Your task to perform on an android device: Show the shopping cart on amazon. Search for razer huntsman on amazon, select the first entry, and add it to the cart. Image 0: 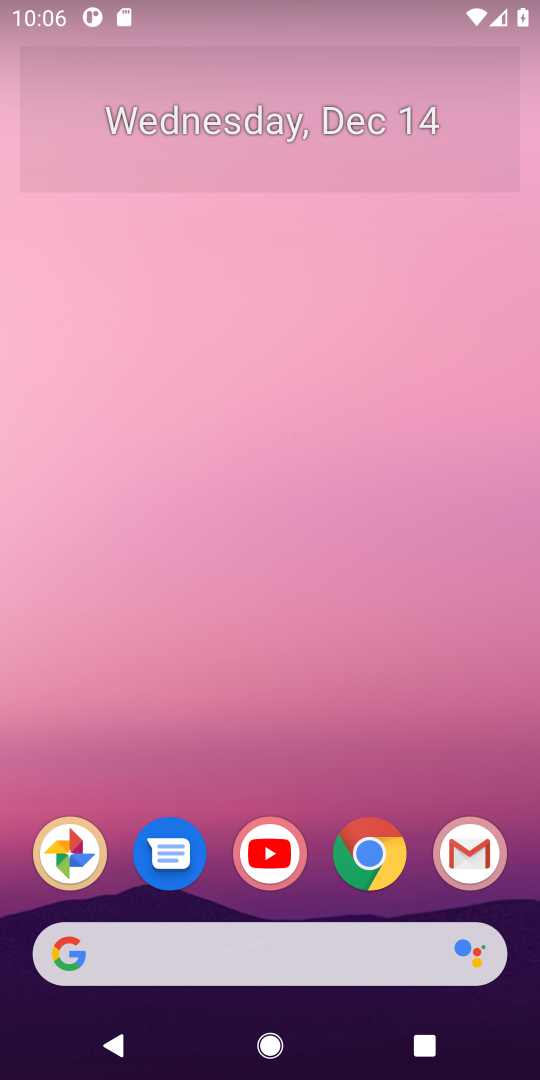
Step 0: click (366, 848)
Your task to perform on an android device: Show the shopping cart on amazon. Search for razer huntsman on amazon, select the first entry, and add it to the cart. Image 1: 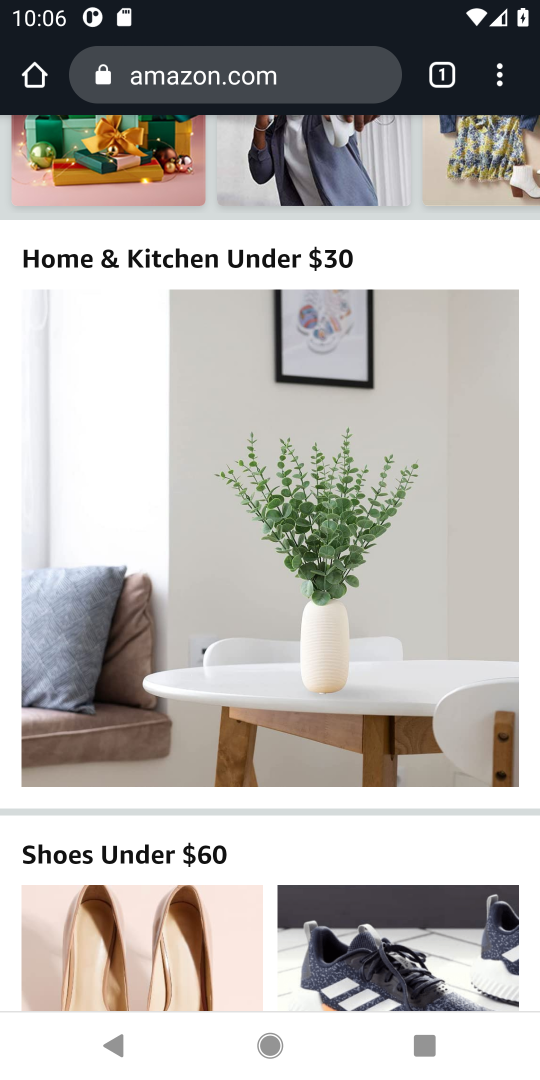
Step 1: press back button
Your task to perform on an android device: Show the shopping cart on amazon. Search for razer huntsman on amazon, select the first entry, and add it to the cart. Image 2: 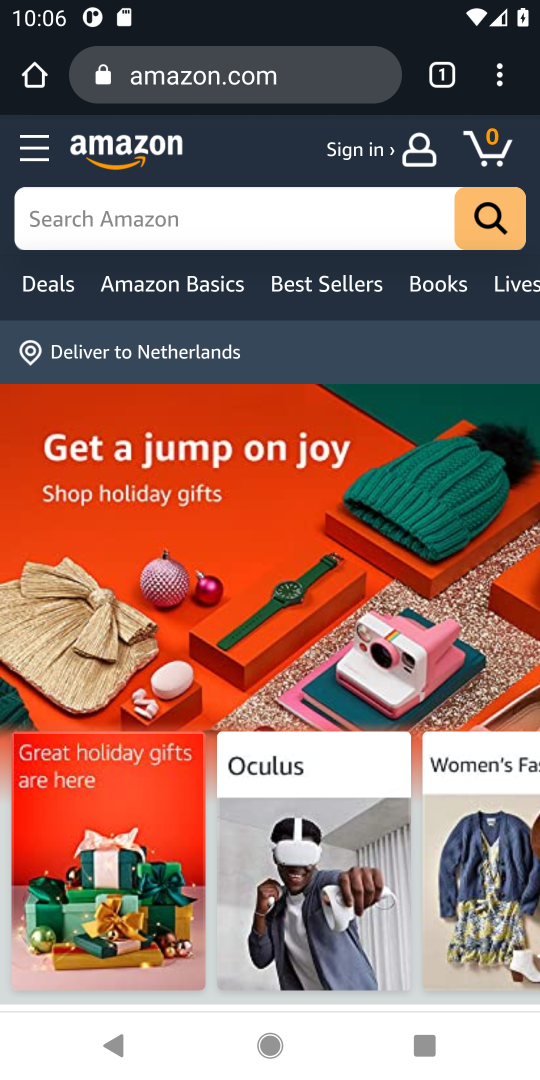
Step 2: click (37, 84)
Your task to perform on an android device: Show the shopping cart on amazon. Search for razer huntsman on amazon, select the first entry, and add it to the cart. Image 3: 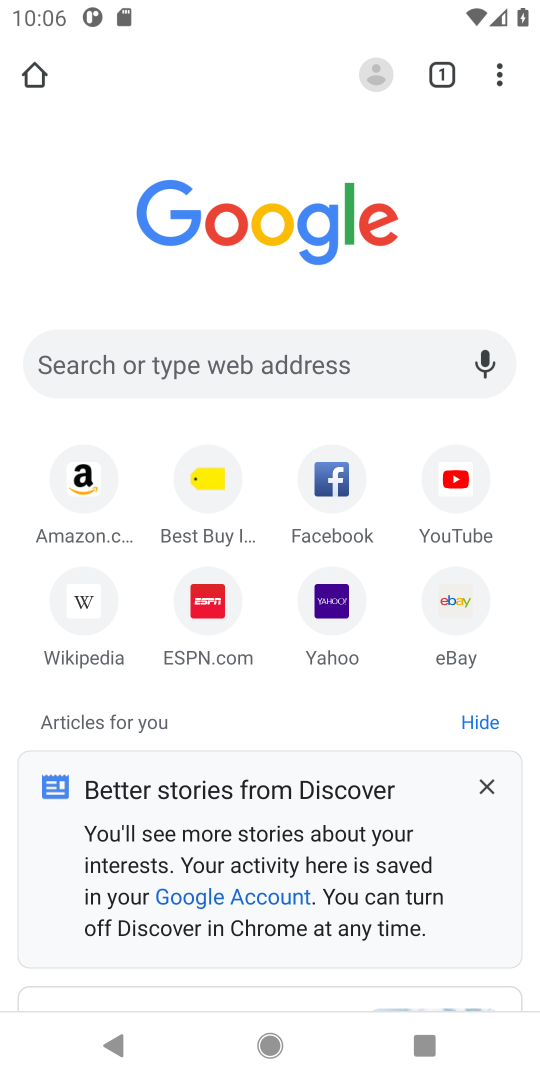
Step 3: click (75, 480)
Your task to perform on an android device: Show the shopping cart on amazon. Search for razer huntsman on amazon, select the first entry, and add it to the cart. Image 4: 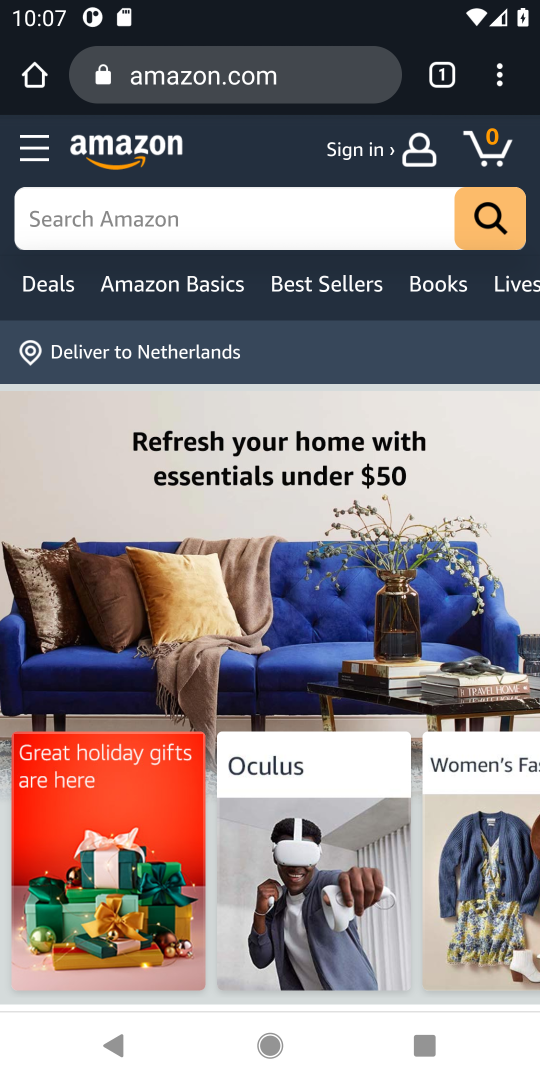
Step 4: click (352, 217)
Your task to perform on an android device: Show the shopping cart on amazon. Search for razer huntsman on amazon, select the first entry, and add it to the cart. Image 5: 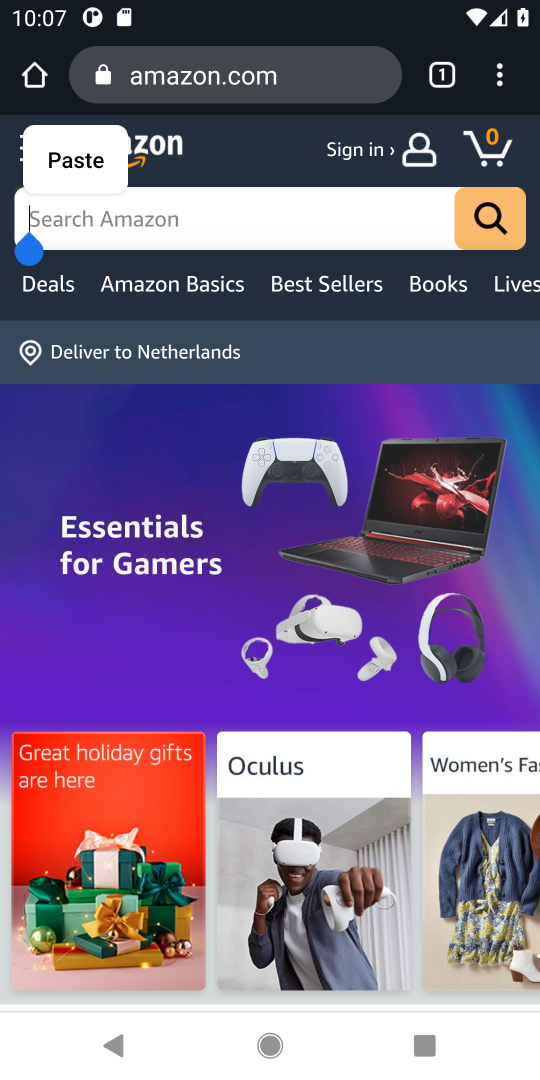
Step 5: click (498, 151)
Your task to perform on an android device: Show the shopping cart on amazon. Search for razer huntsman on amazon, select the first entry, and add it to the cart. Image 6: 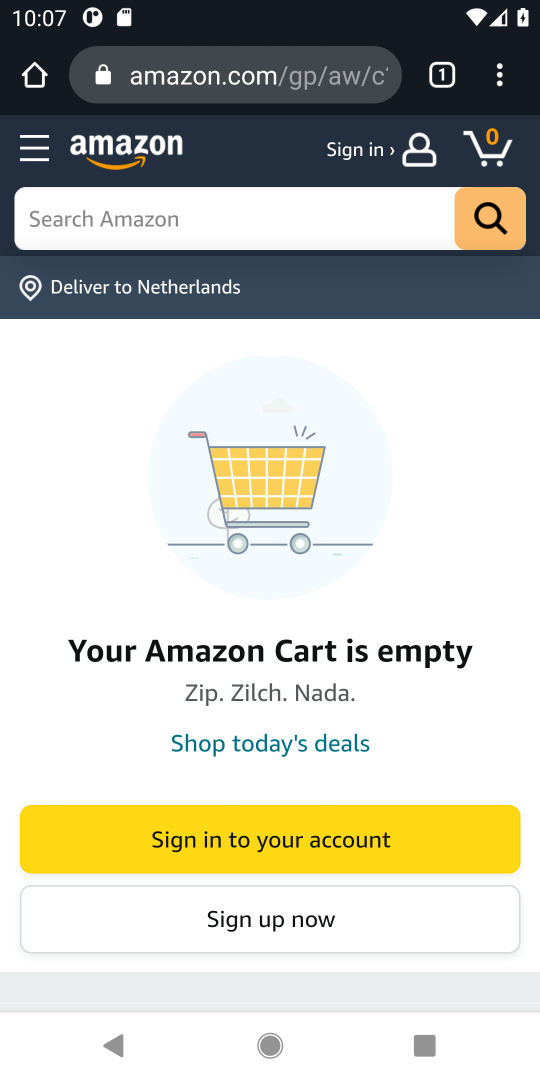
Step 6: click (393, 195)
Your task to perform on an android device: Show the shopping cart on amazon. Search for razer huntsman on amazon, select the first entry, and add it to the cart. Image 7: 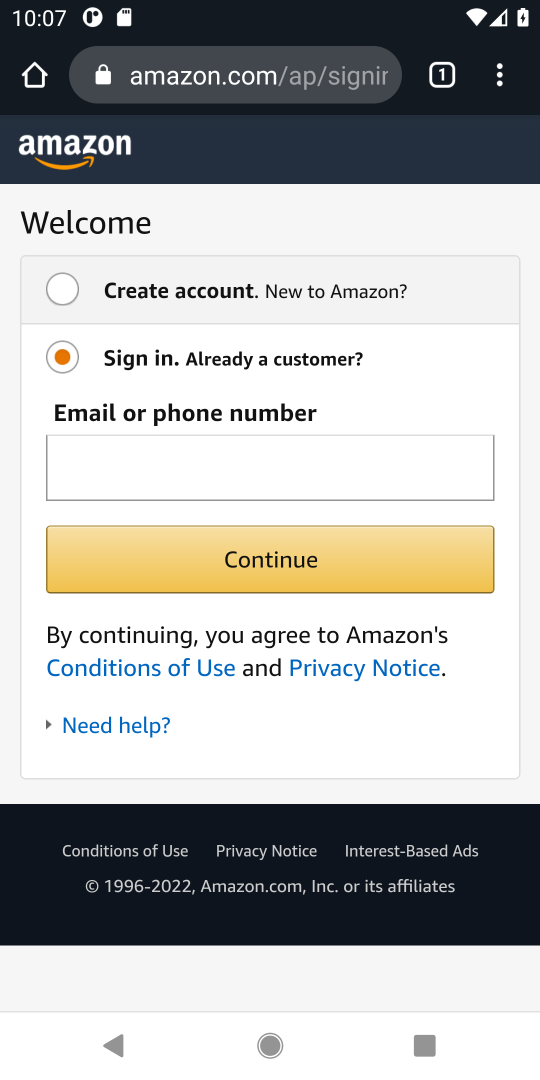
Step 7: press back button
Your task to perform on an android device: Show the shopping cart on amazon. Search for razer huntsman on amazon, select the first entry, and add it to the cart. Image 8: 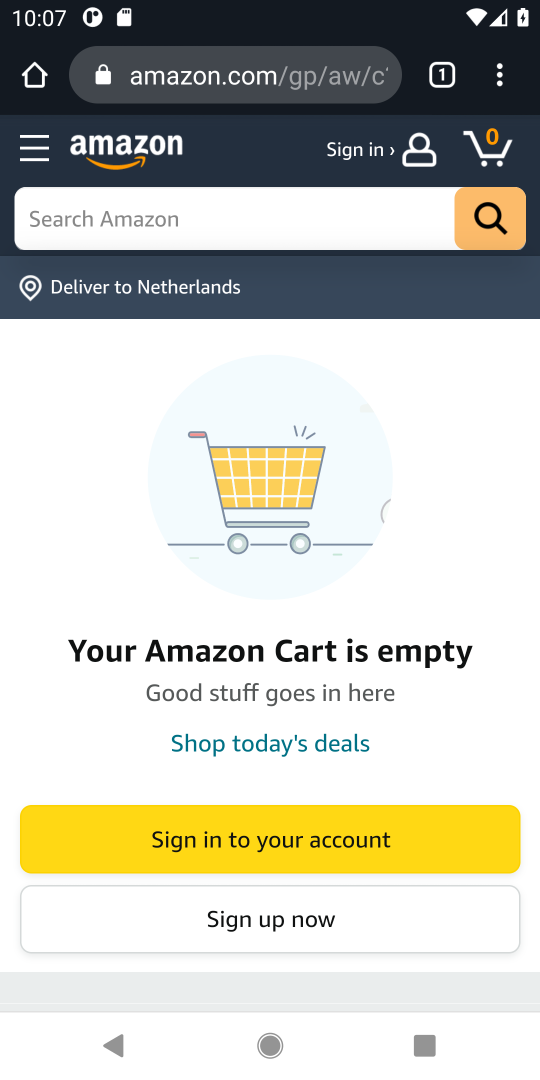
Step 8: click (260, 222)
Your task to perform on an android device: Show the shopping cart on amazon. Search for razer huntsman on amazon, select the first entry, and add it to the cart. Image 9: 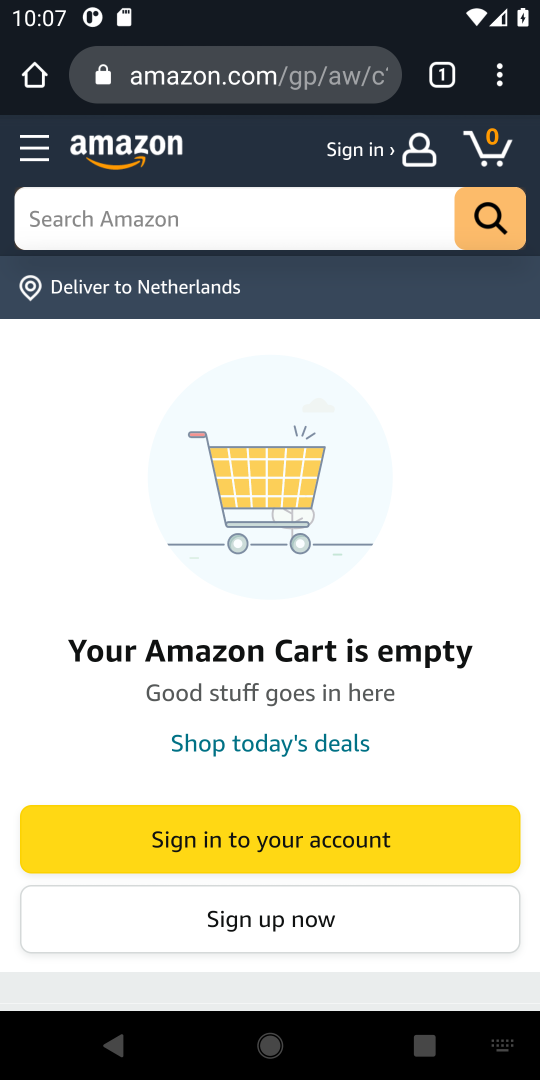
Step 9: press enter
Your task to perform on an android device: Show the shopping cart on amazon. Search for razer huntsman on amazon, select the first entry, and add it to the cart. Image 10: 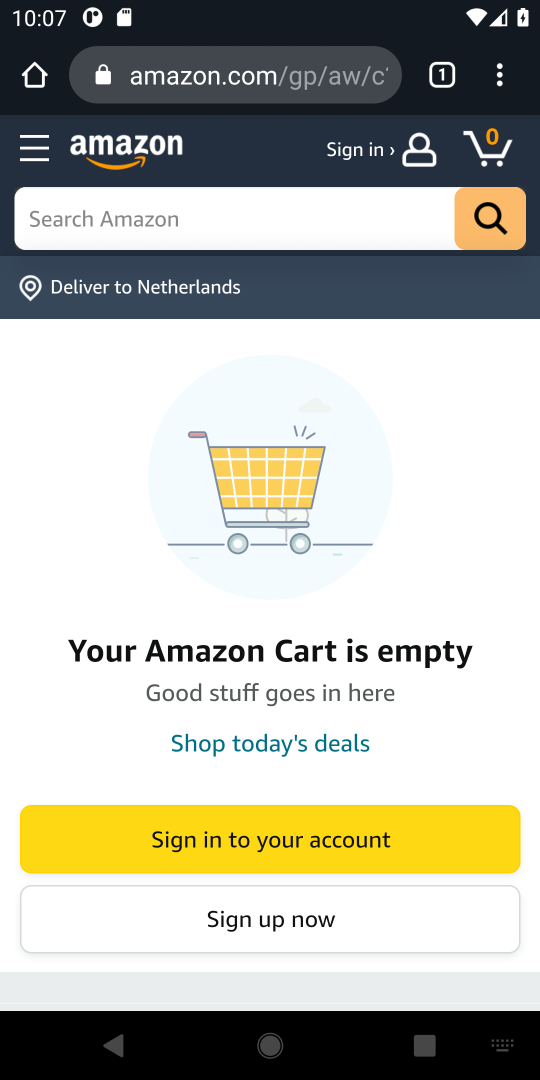
Step 10: type "razer huntsman"
Your task to perform on an android device: Show the shopping cart on amazon. Search for razer huntsman on amazon, select the first entry, and add it to the cart. Image 11: 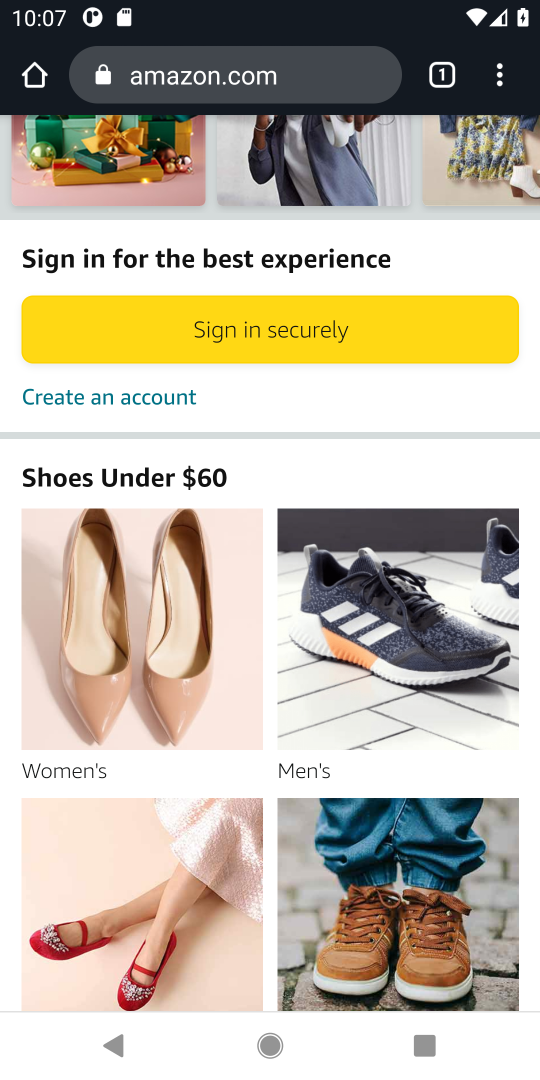
Step 11: press back button
Your task to perform on an android device: Show the shopping cart on amazon. Search for razer huntsman on amazon, select the first entry, and add it to the cart. Image 12: 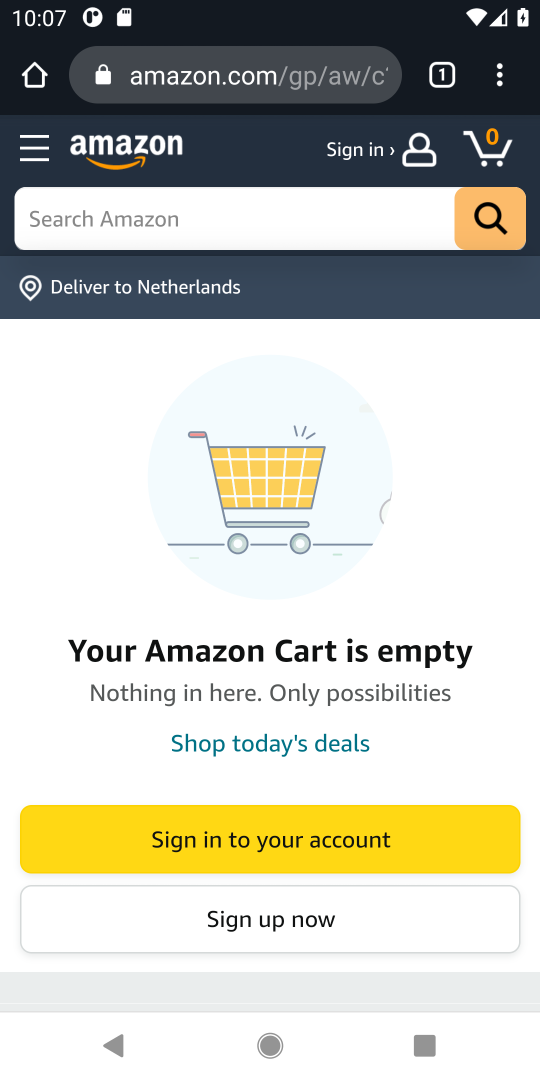
Step 12: click (63, 214)
Your task to perform on an android device: Show the shopping cart on amazon. Search for razer huntsman on amazon, select the first entry, and add it to the cart. Image 13: 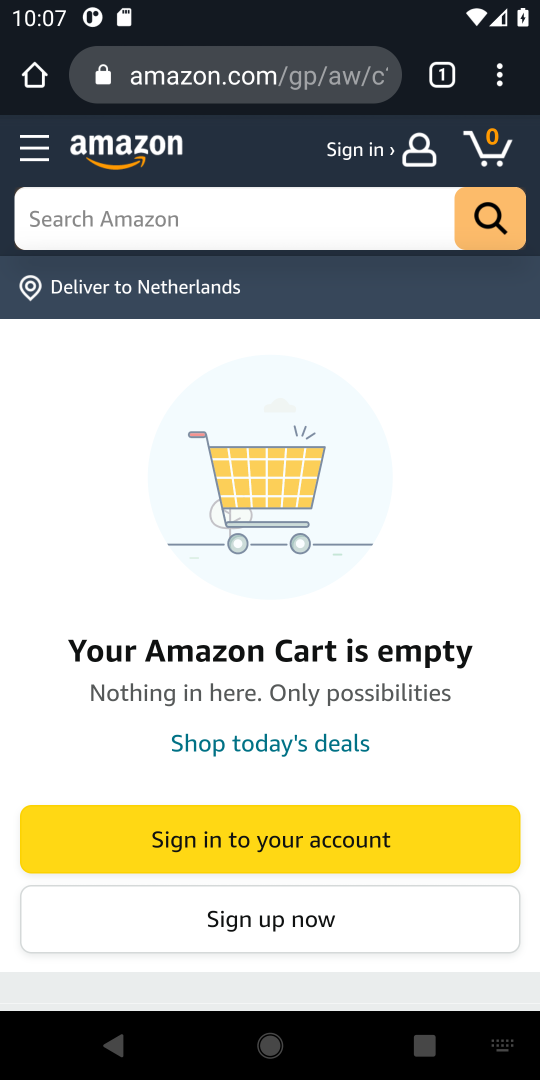
Step 13: press enter
Your task to perform on an android device: Show the shopping cart on amazon. Search for razer huntsman on amazon, select the first entry, and add it to the cart. Image 14: 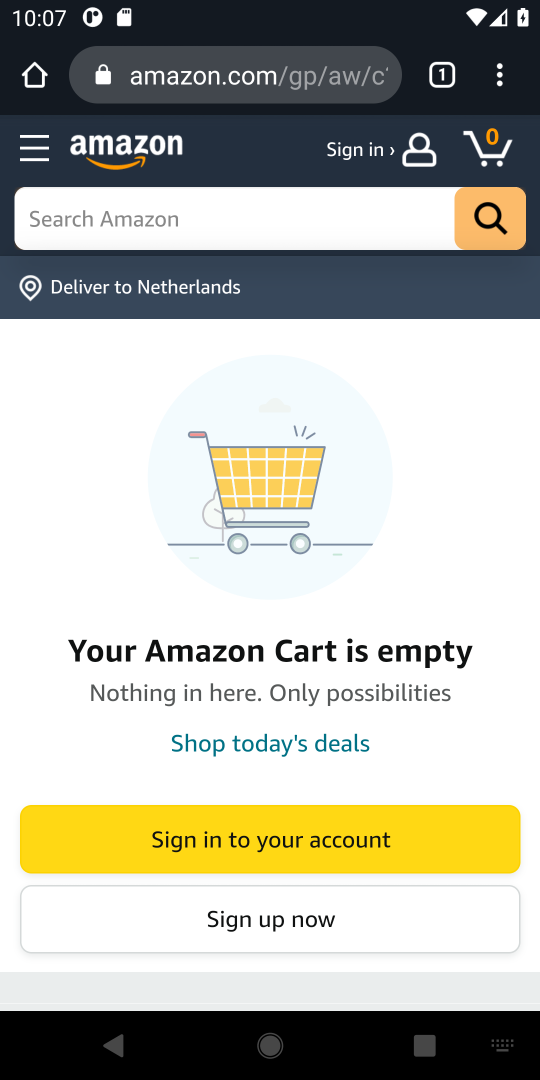
Step 14: type "razer huntsman"
Your task to perform on an android device: Show the shopping cart on amazon. Search for razer huntsman on amazon, select the first entry, and add it to the cart. Image 15: 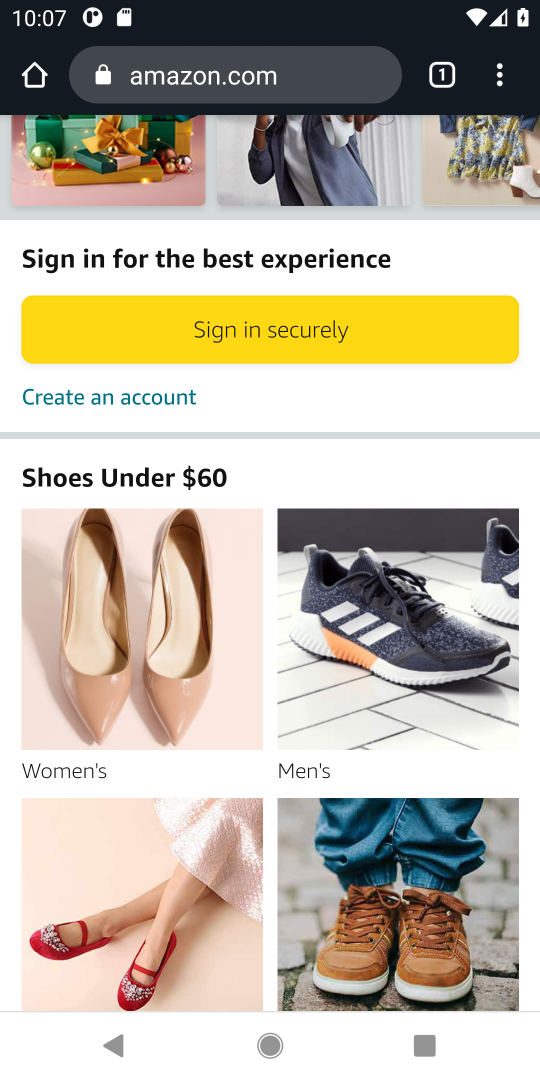
Step 15: task complete